Your task to perform on an android device: Go to network settings Image 0: 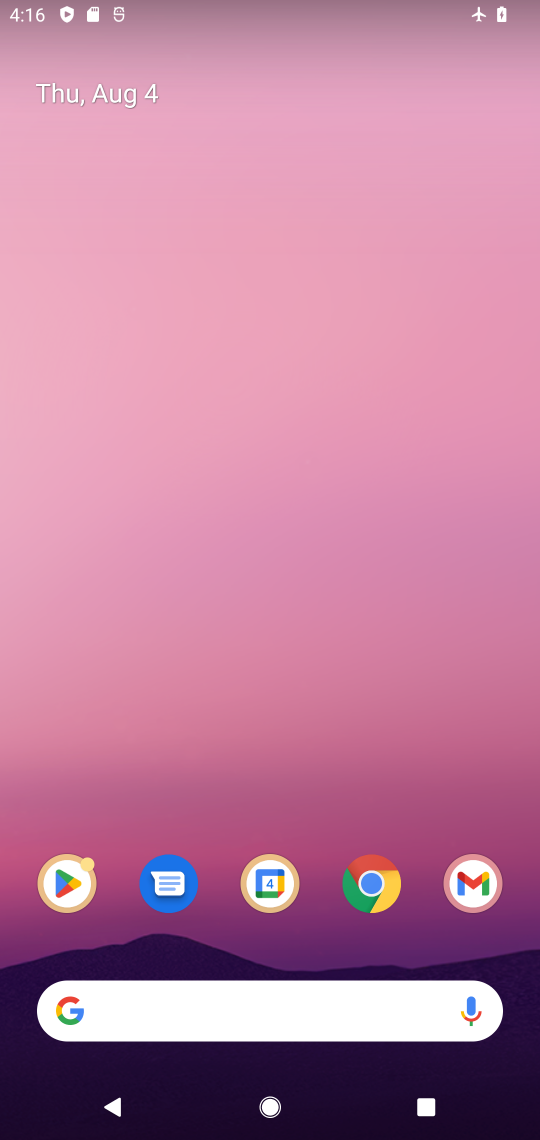
Step 0: drag from (442, 794) to (179, 12)
Your task to perform on an android device: Go to network settings Image 1: 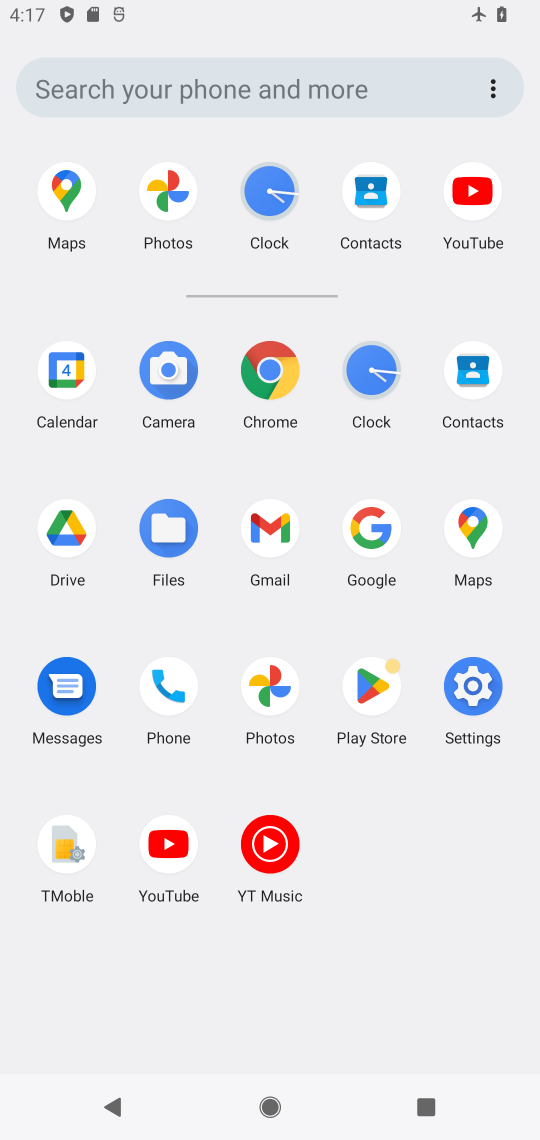
Step 1: click (490, 686)
Your task to perform on an android device: Go to network settings Image 2: 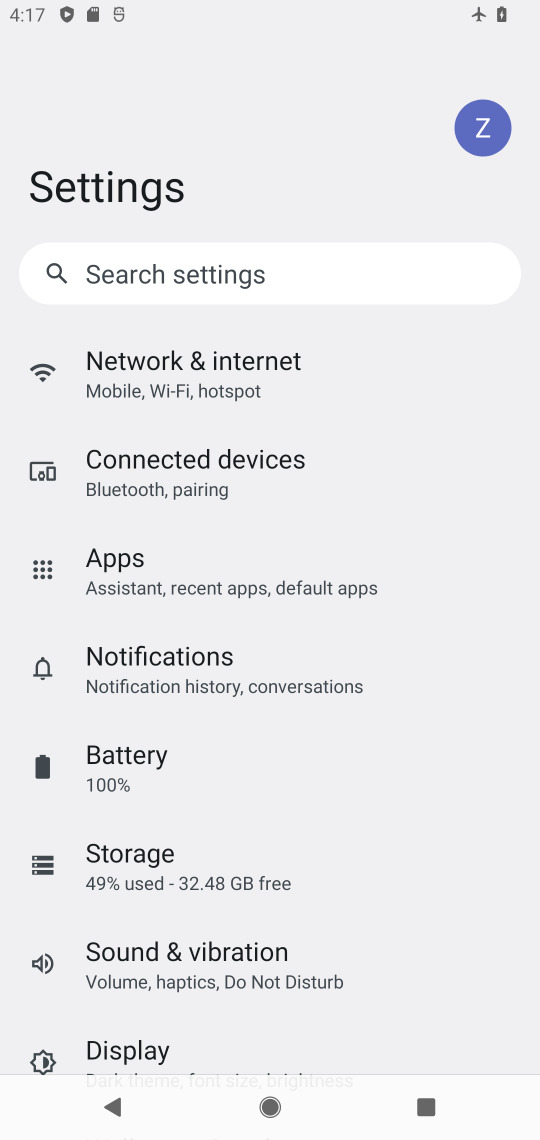
Step 2: click (199, 377)
Your task to perform on an android device: Go to network settings Image 3: 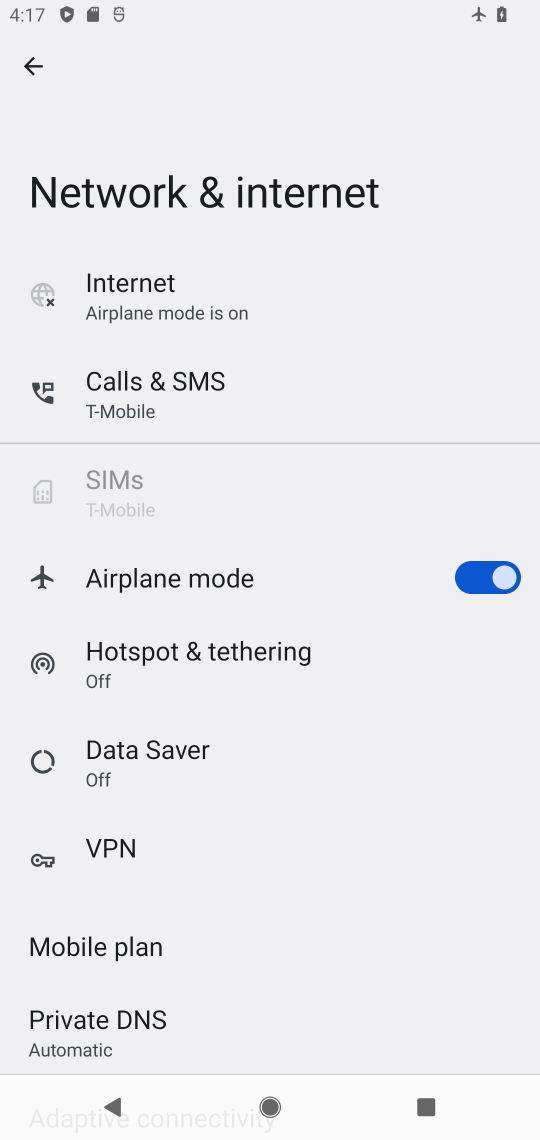
Step 3: task complete